Your task to perform on an android device: Open battery settings Image 0: 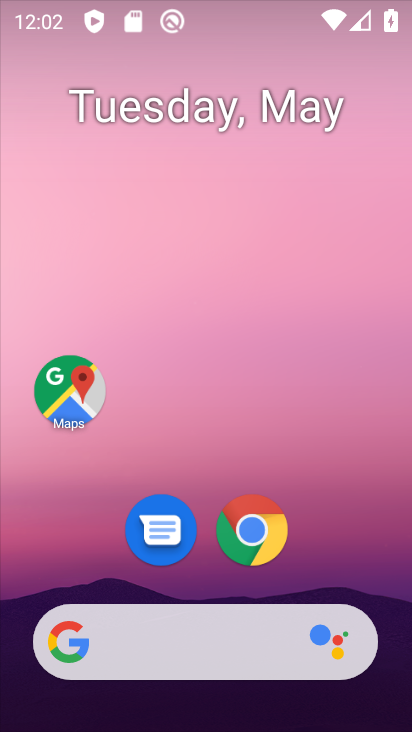
Step 0: click (237, 31)
Your task to perform on an android device: Open battery settings Image 1: 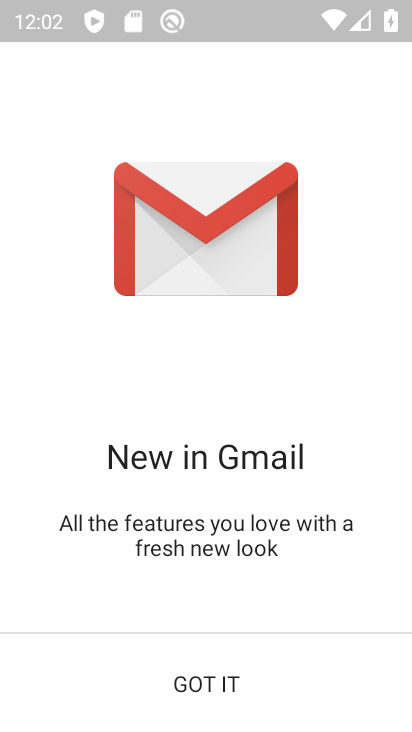
Step 1: press back button
Your task to perform on an android device: Open battery settings Image 2: 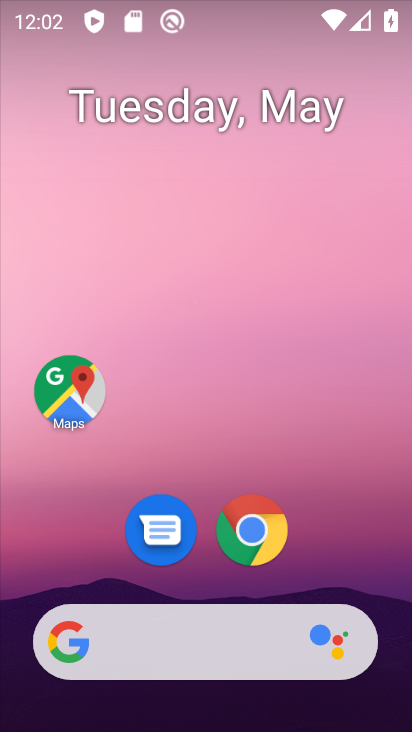
Step 2: drag from (373, 551) to (302, 14)
Your task to perform on an android device: Open battery settings Image 3: 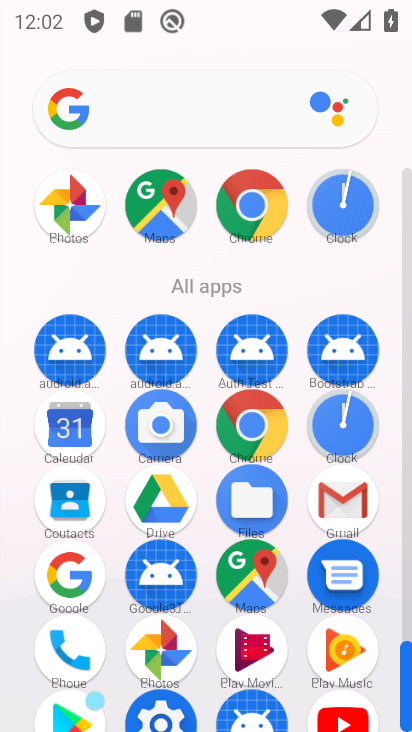
Step 3: drag from (6, 604) to (20, 238)
Your task to perform on an android device: Open battery settings Image 4: 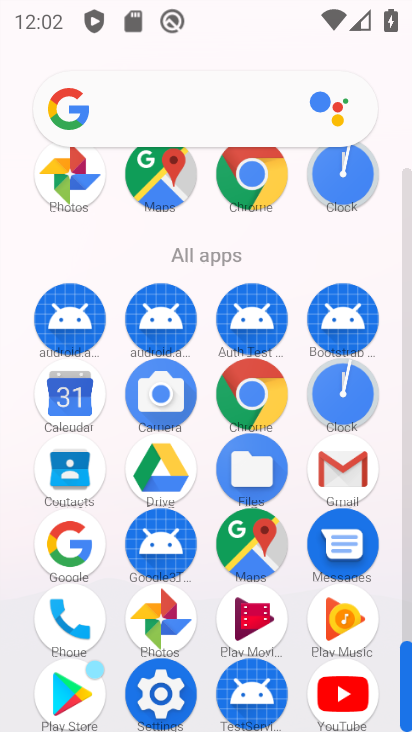
Step 4: click (157, 693)
Your task to perform on an android device: Open battery settings Image 5: 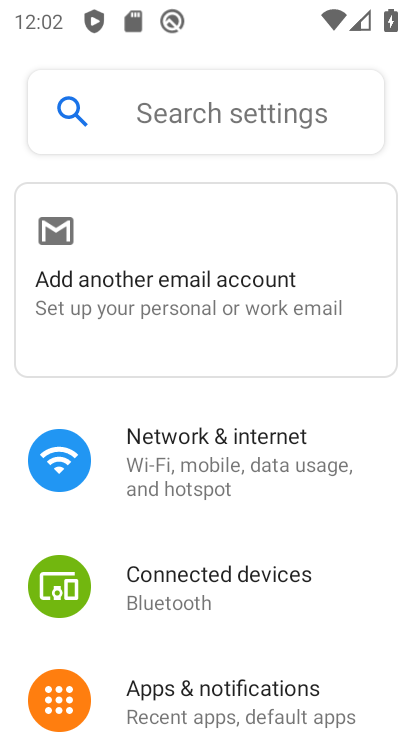
Step 5: drag from (338, 616) to (338, 99)
Your task to perform on an android device: Open battery settings Image 6: 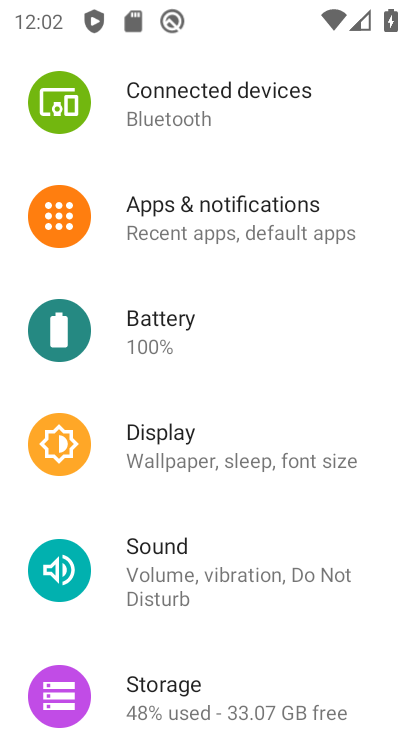
Step 6: click (200, 329)
Your task to perform on an android device: Open battery settings Image 7: 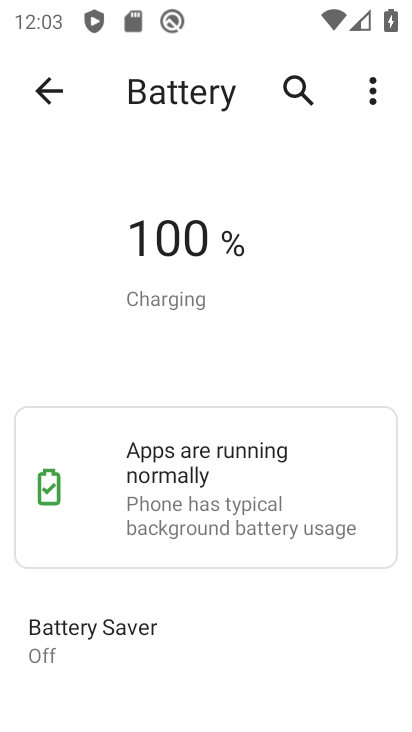
Step 7: drag from (250, 583) to (263, 166)
Your task to perform on an android device: Open battery settings Image 8: 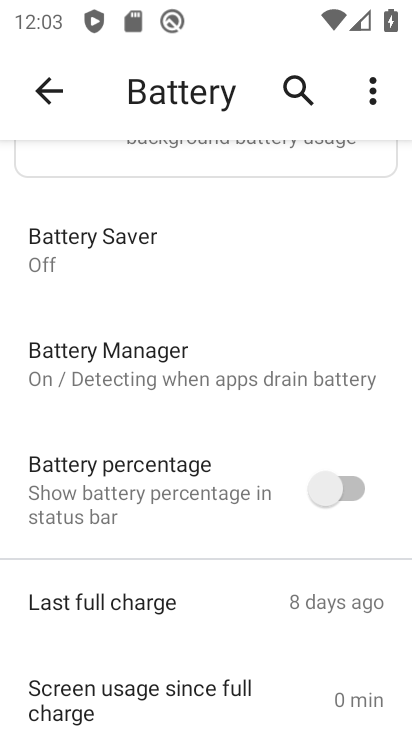
Step 8: drag from (215, 536) to (205, 143)
Your task to perform on an android device: Open battery settings Image 9: 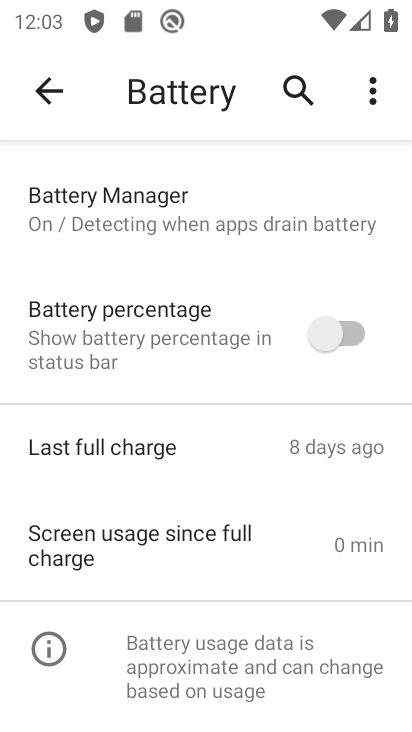
Step 9: drag from (240, 549) to (225, 161)
Your task to perform on an android device: Open battery settings Image 10: 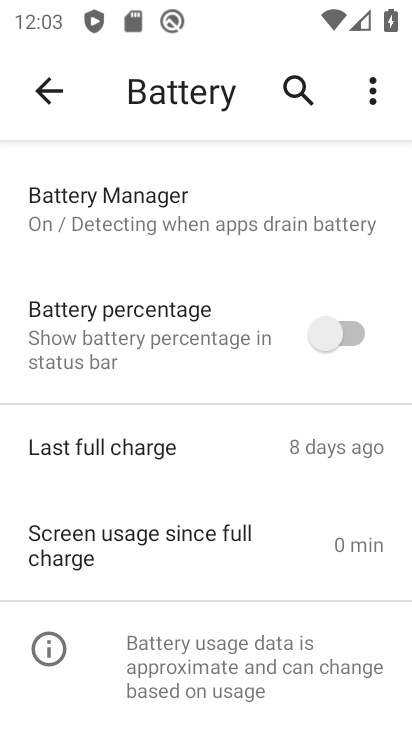
Step 10: drag from (193, 631) to (169, 185)
Your task to perform on an android device: Open battery settings Image 11: 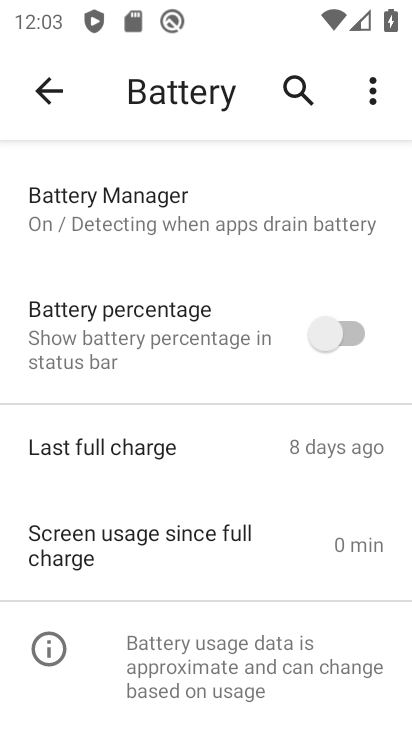
Step 11: drag from (219, 608) to (216, 154)
Your task to perform on an android device: Open battery settings Image 12: 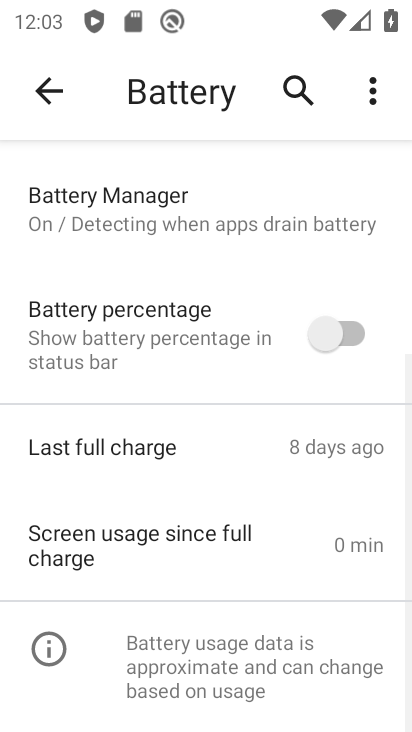
Step 12: drag from (217, 198) to (219, 557)
Your task to perform on an android device: Open battery settings Image 13: 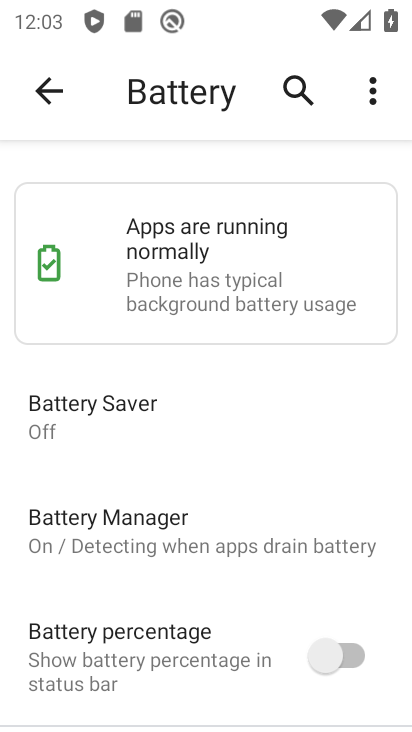
Step 13: drag from (222, 205) to (228, 615)
Your task to perform on an android device: Open battery settings Image 14: 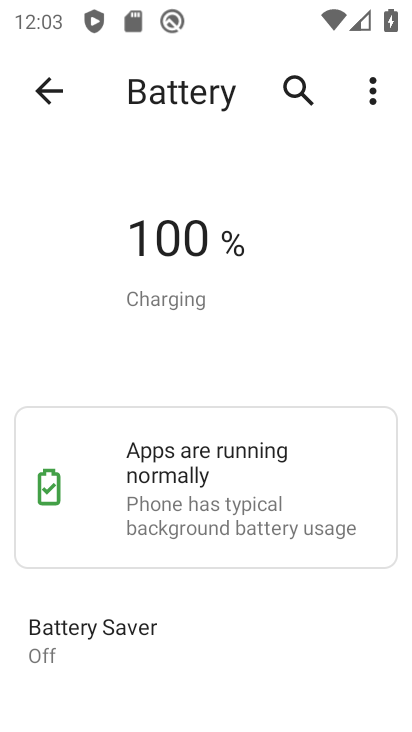
Step 14: drag from (248, 178) to (254, 367)
Your task to perform on an android device: Open battery settings Image 15: 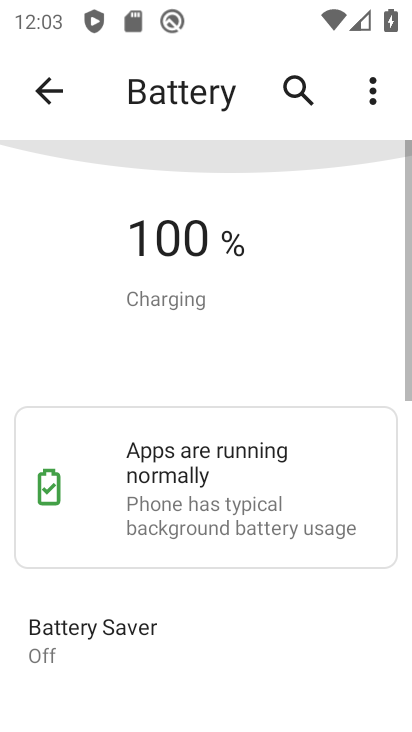
Step 15: click (268, 513)
Your task to perform on an android device: Open battery settings Image 16: 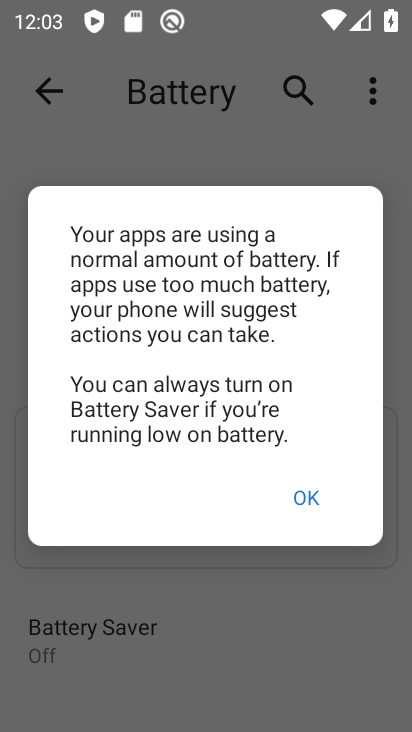
Step 16: click (312, 500)
Your task to perform on an android device: Open battery settings Image 17: 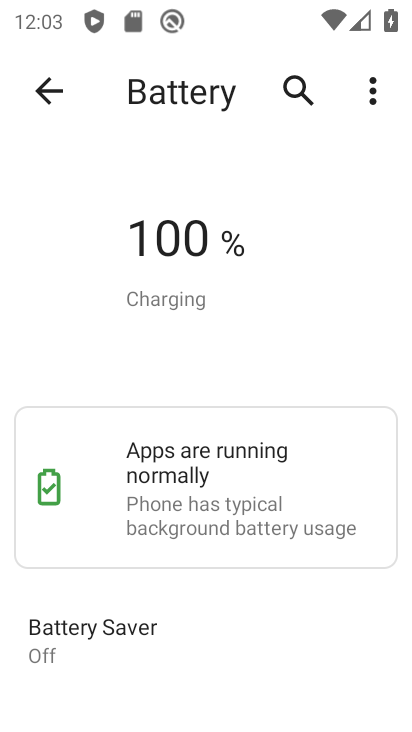
Step 17: task complete